Your task to perform on an android device: Search for sushi restaurants on Maps Image 0: 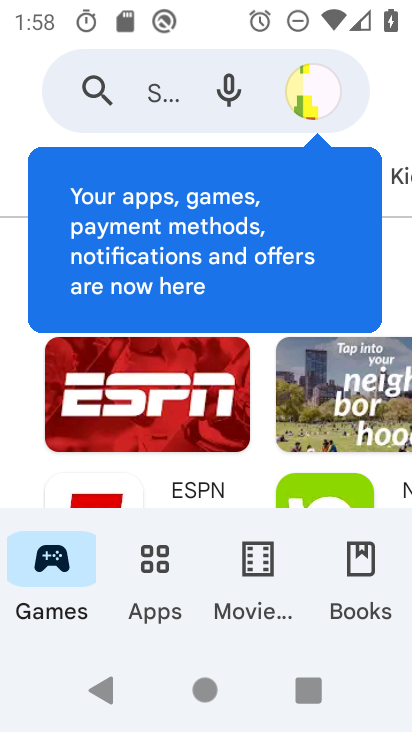
Step 0: press home button
Your task to perform on an android device: Search for sushi restaurants on Maps Image 1: 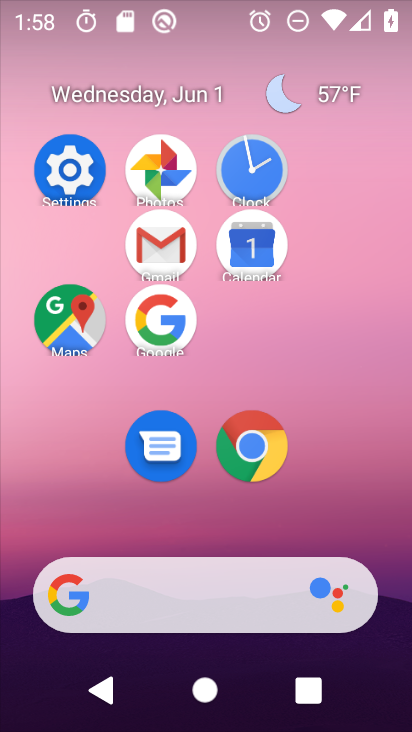
Step 1: click (21, 308)
Your task to perform on an android device: Search for sushi restaurants on Maps Image 2: 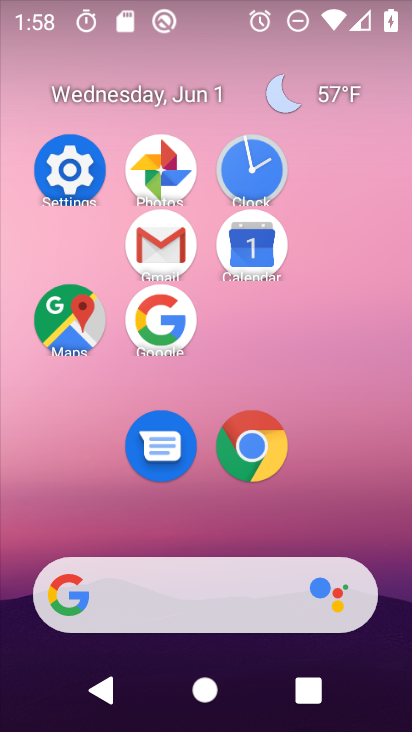
Step 2: click (74, 307)
Your task to perform on an android device: Search for sushi restaurants on Maps Image 3: 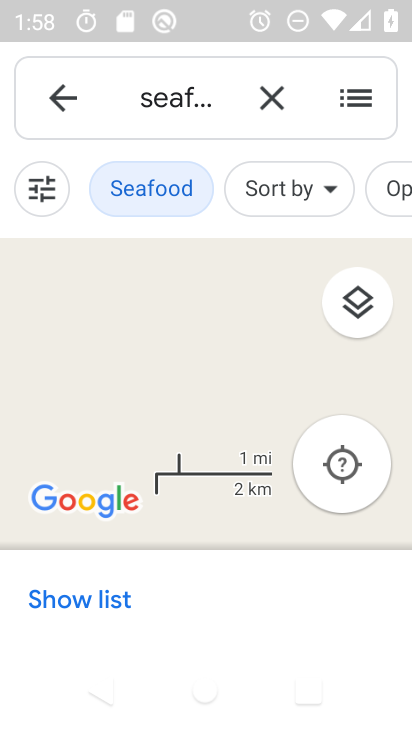
Step 3: click (288, 111)
Your task to perform on an android device: Search for sushi restaurants on Maps Image 4: 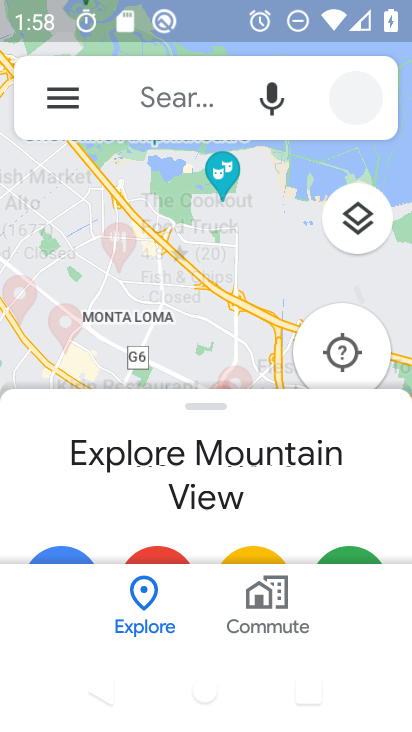
Step 4: click (85, 110)
Your task to perform on an android device: Search for sushi restaurants on Maps Image 5: 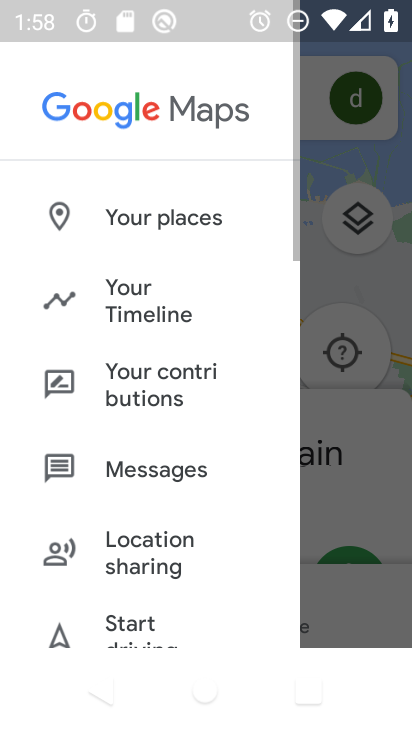
Step 5: click (315, 119)
Your task to perform on an android device: Search for sushi restaurants on Maps Image 6: 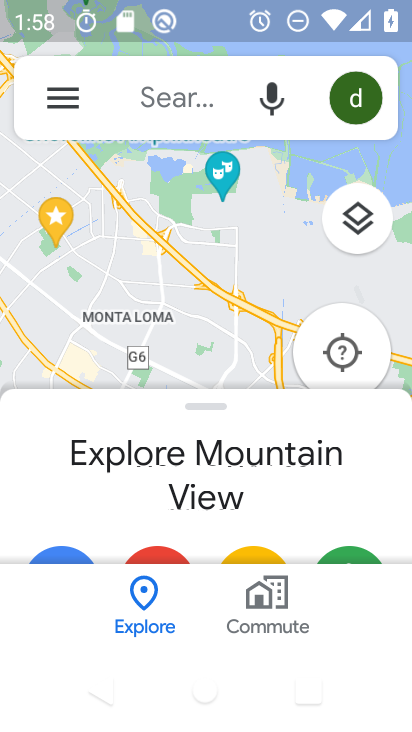
Step 6: click (200, 101)
Your task to perform on an android device: Search for sushi restaurants on Maps Image 7: 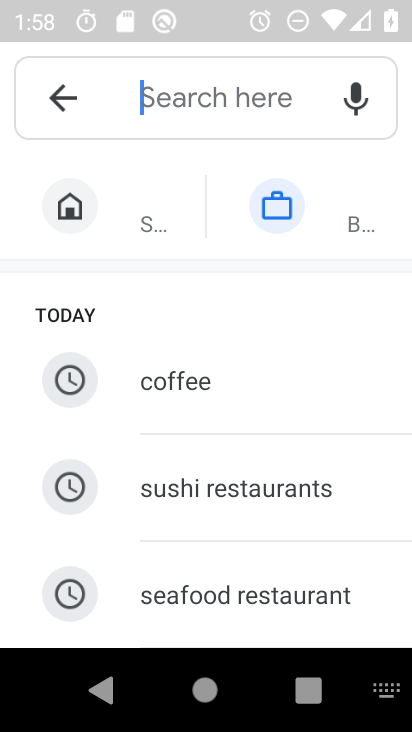
Step 7: type "sushi restaurants"
Your task to perform on an android device: Search for sushi restaurants on Maps Image 8: 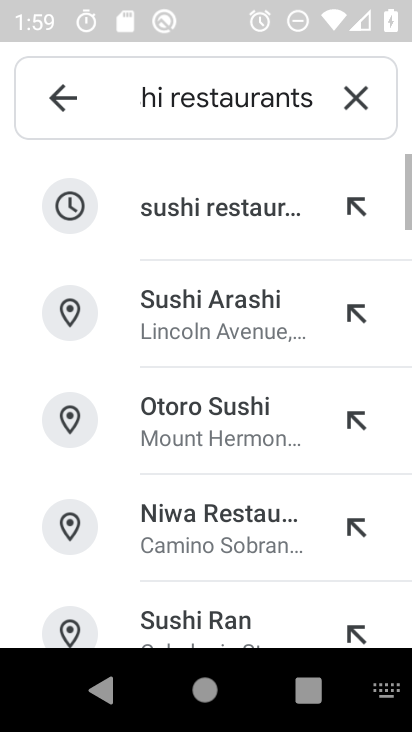
Step 8: task complete